Your task to perform on an android device: Set the phone to "Do not disturb". Image 0: 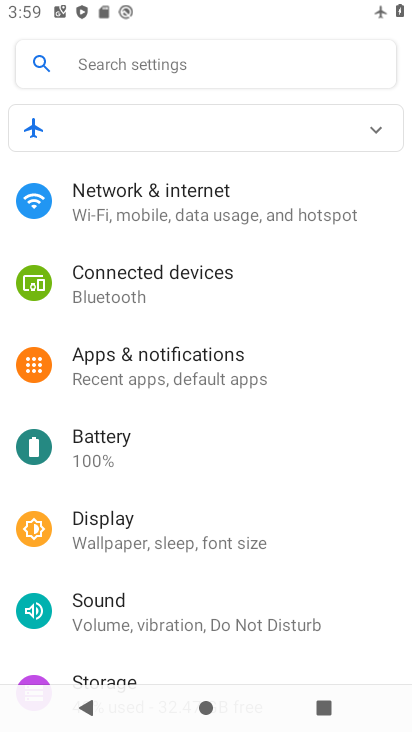
Step 0: press home button
Your task to perform on an android device: Set the phone to "Do not disturb". Image 1: 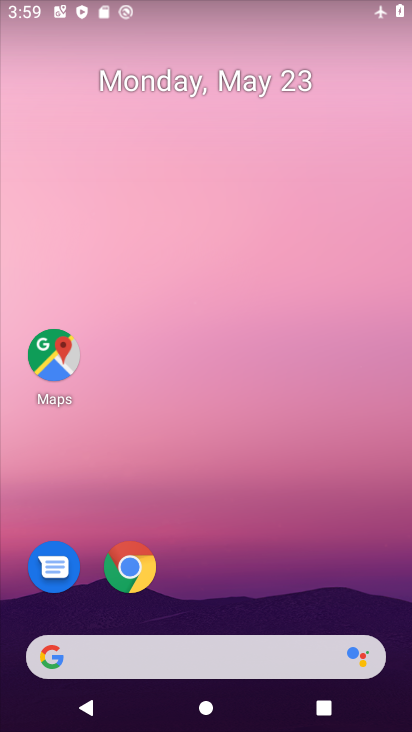
Step 1: drag from (395, 650) to (251, 1)
Your task to perform on an android device: Set the phone to "Do not disturb". Image 2: 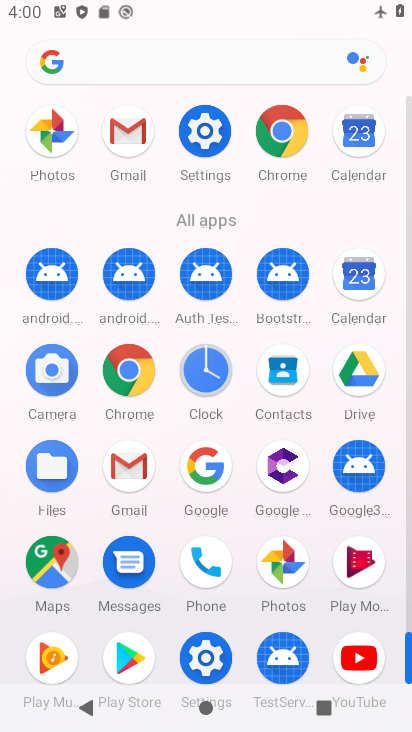
Step 2: click (203, 655)
Your task to perform on an android device: Set the phone to "Do not disturb". Image 3: 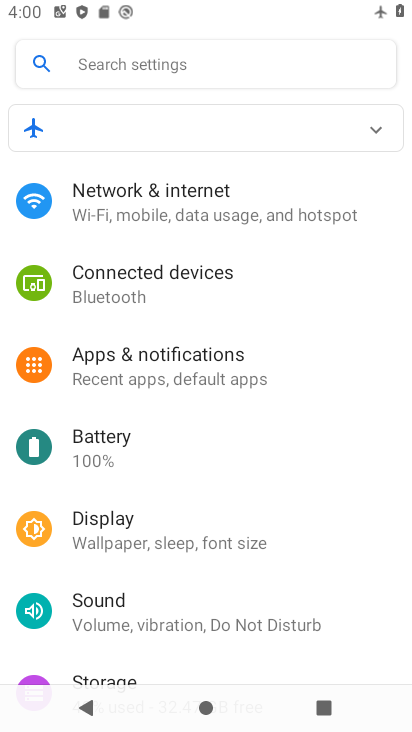
Step 3: click (156, 618)
Your task to perform on an android device: Set the phone to "Do not disturb". Image 4: 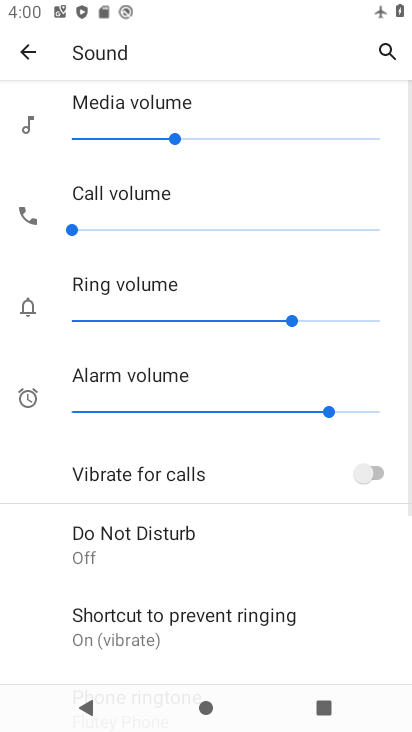
Step 4: click (124, 533)
Your task to perform on an android device: Set the phone to "Do not disturb". Image 5: 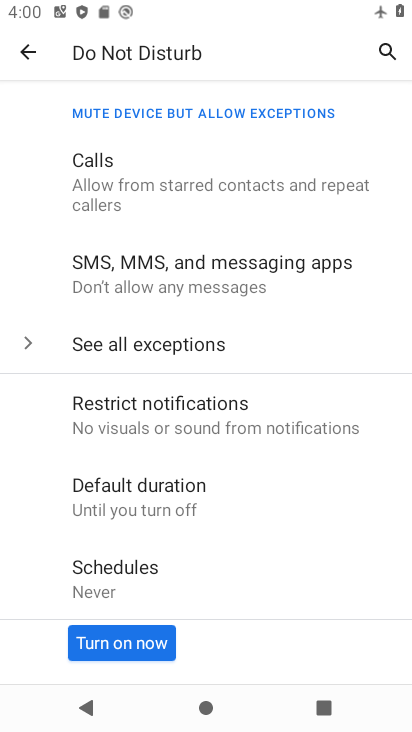
Step 5: click (121, 635)
Your task to perform on an android device: Set the phone to "Do not disturb". Image 6: 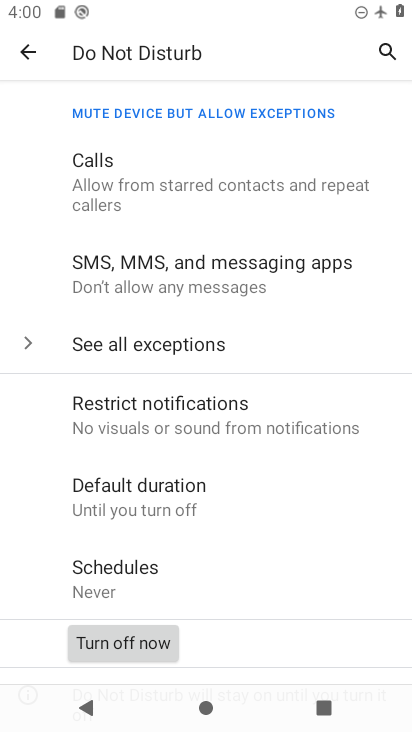
Step 6: task complete